Your task to perform on an android device: turn on the 24-hour format for clock Image 0: 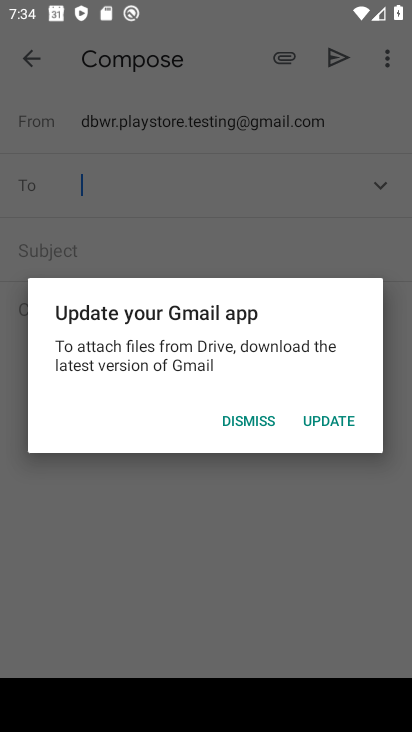
Step 0: click (313, 420)
Your task to perform on an android device: turn on the 24-hour format for clock Image 1: 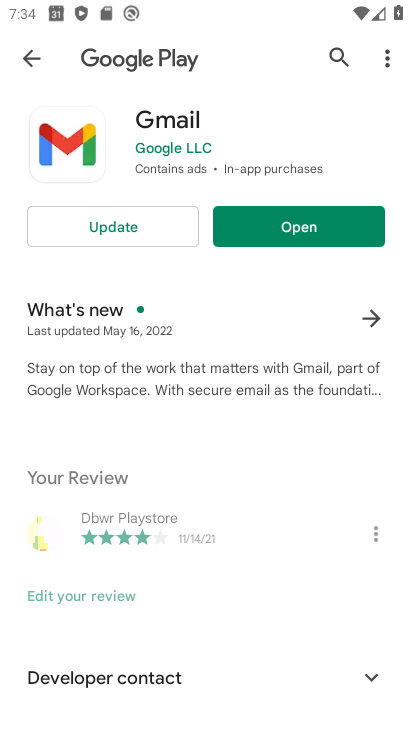
Step 1: press back button
Your task to perform on an android device: turn on the 24-hour format for clock Image 2: 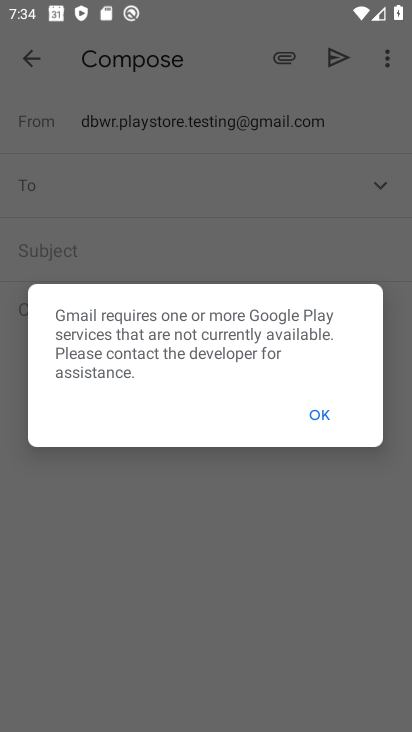
Step 2: press home button
Your task to perform on an android device: turn on the 24-hour format for clock Image 3: 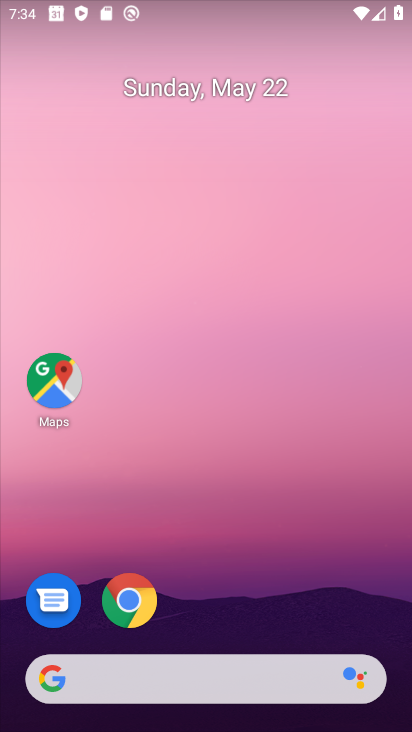
Step 3: drag from (244, 597) to (253, 25)
Your task to perform on an android device: turn on the 24-hour format for clock Image 4: 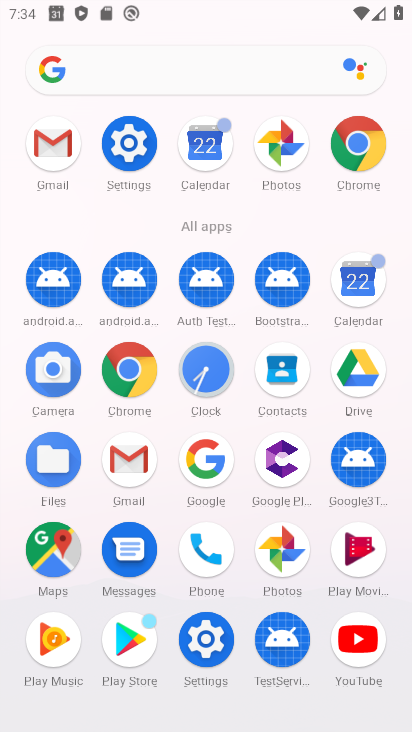
Step 4: click (204, 366)
Your task to perform on an android device: turn on the 24-hour format for clock Image 5: 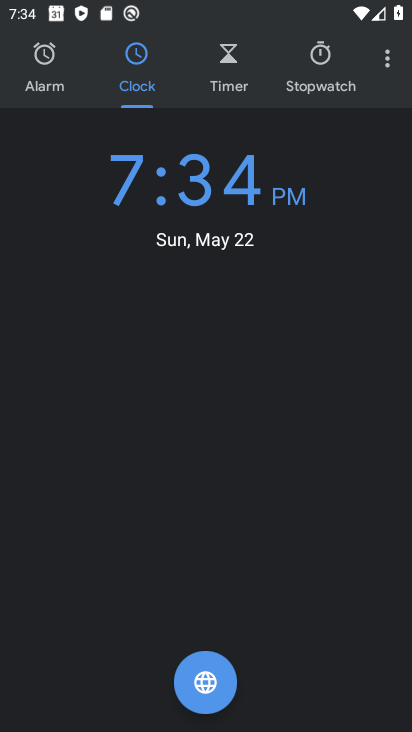
Step 5: drag from (390, 61) to (237, 117)
Your task to perform on an android device: turn on the 24-hour format for clock Image 6: 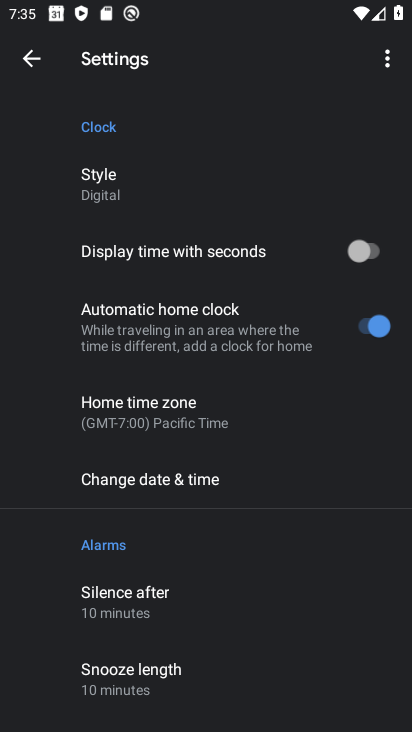
Step 6: click (187, 485)
Your task to perform on an android device: turn on the 24-hour format for clock Image 7: 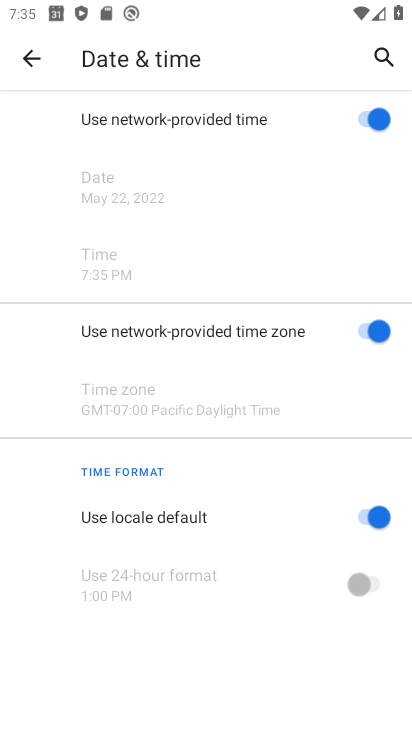
Step 7: click (370, 517)
Your task to perform on an android device: turn on the 24-hour format for clock Image 8: 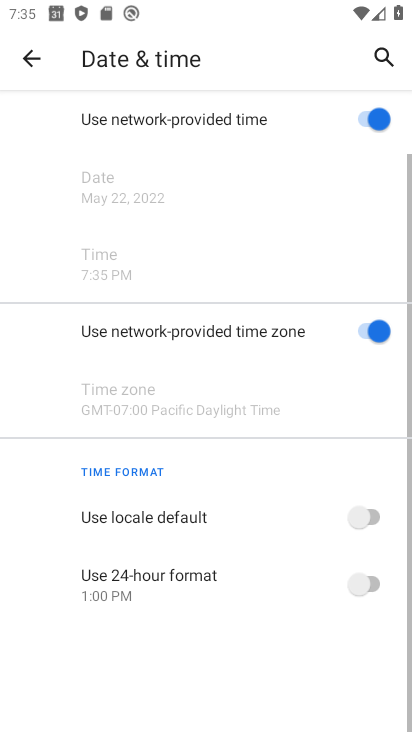
Step 8: click (375, 587)
Your task to perform on an android device: turn on the 24-hour format for clock Image 9: 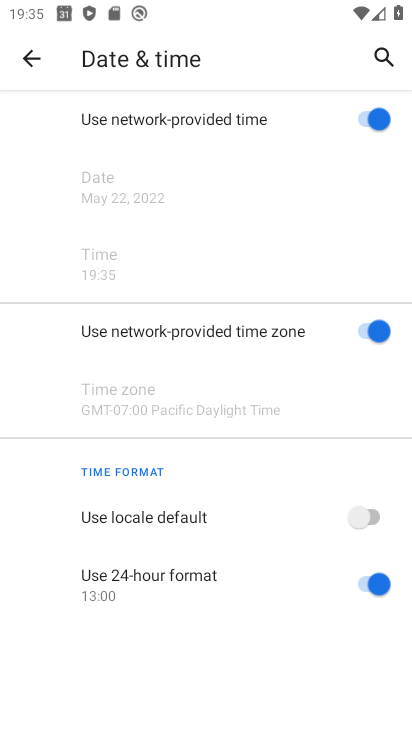
Step 9: task complete